Your task to perform on an android device: change notification settings in the gmail app Image 0: 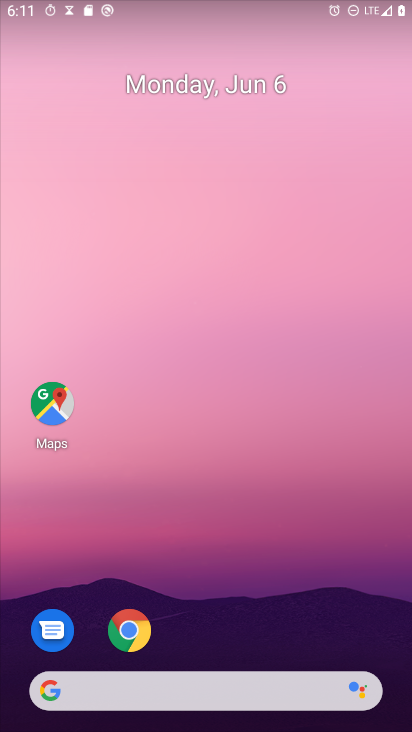
Step 0: drag from (266, 570) to (264, 37)
Your task to perform on an android device: change notification settings in the gmail app Image 1: 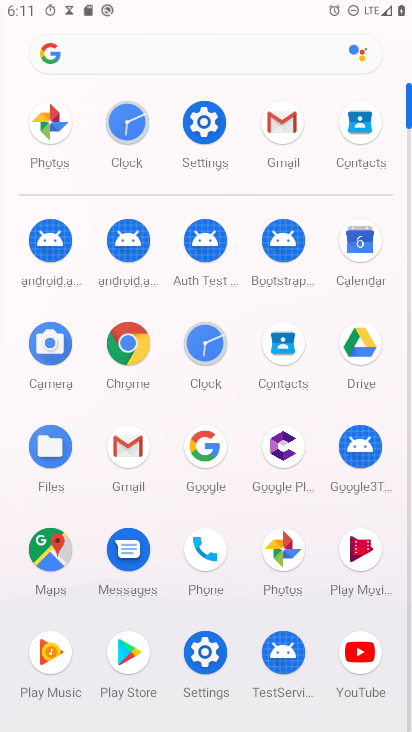
Step 1: click (290, 123)
Your task to perform on an android device: change notification settings in the gmail app Image 2: 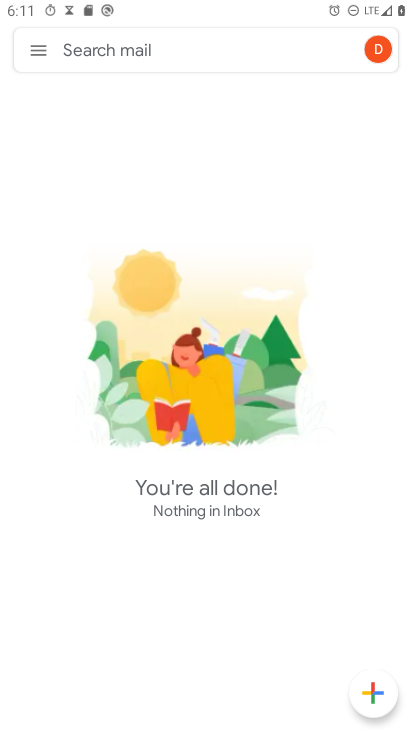
Step 2: click (35, 55)
Your task to perform on an android device: change notification settings in the gmail app Image 3: 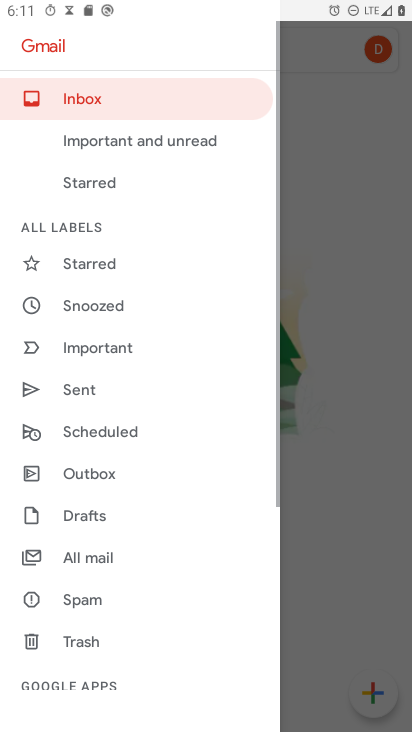
Step 3: drag from (192, 636) to (240, 29)
Your task to perform on an android device: change notification settings in the gmail app Image 4: 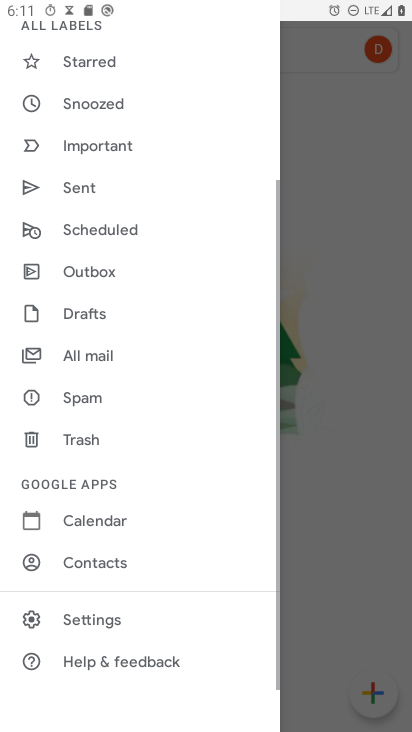
Step 4: click (120, 628)
Your task to perform on an android device: change notification settings in the gmail app Image 5: 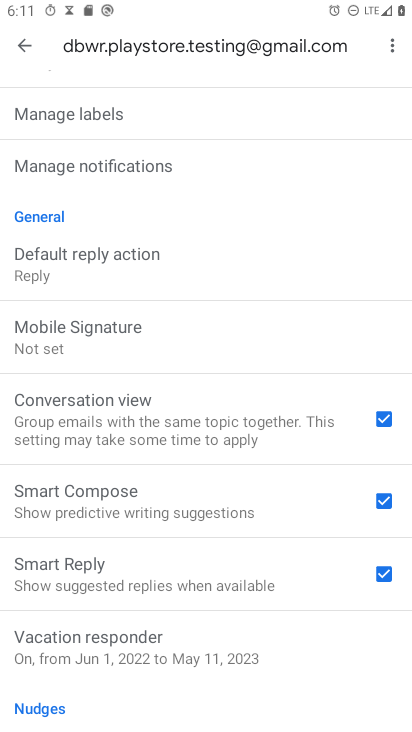
Step 5: drag from (223, 573) to (305, 112)
Your task to perform on an android device: change notification settings in the gmail app Image 6: 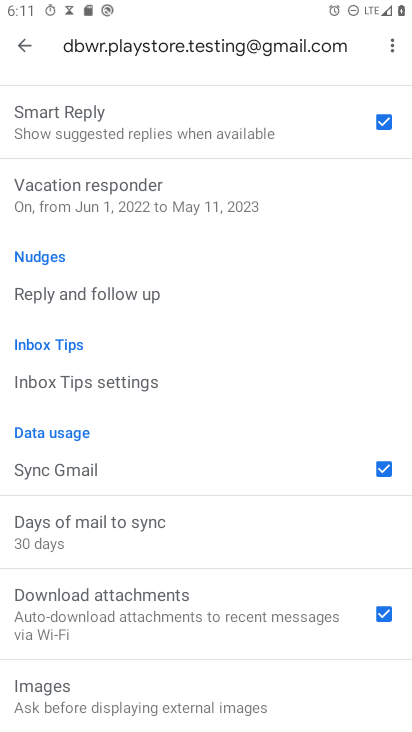
Step 6: drag from (160, 214) to (126, 621)
Your task to perform on an android device: change notification settings in the gmail app Image 7: 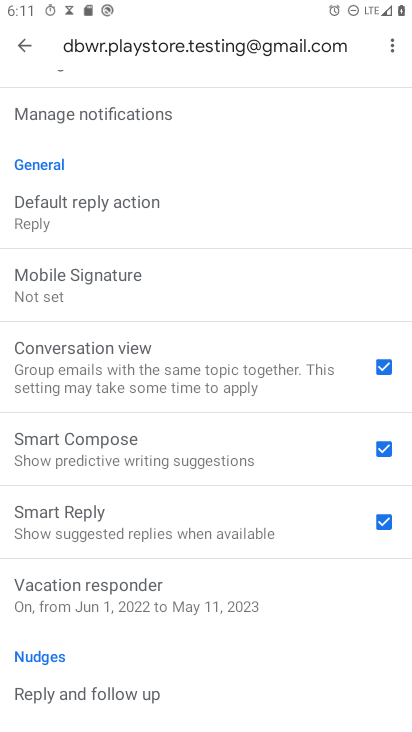
Step 7: click (165, 128)
Your task to perform on an android device: change notification settings in the gmail app Image 8: 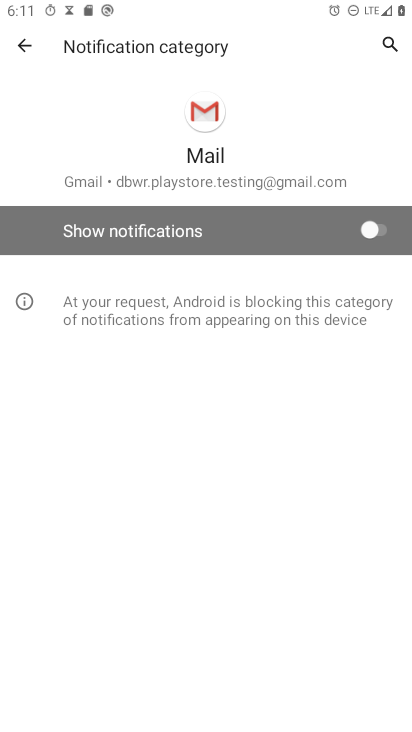
Step 8: click (369, 237)
Your task to perform on an android device: change notification settings in the gmail app Image 9: 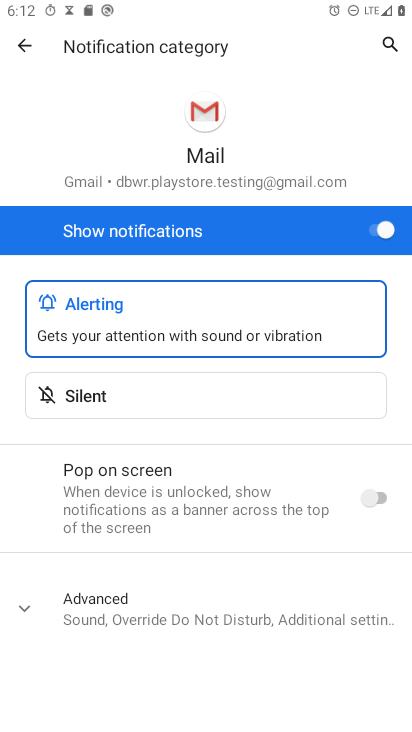
Step 9: task complete